Your task to perform on an android device: turn off location history Image 0: 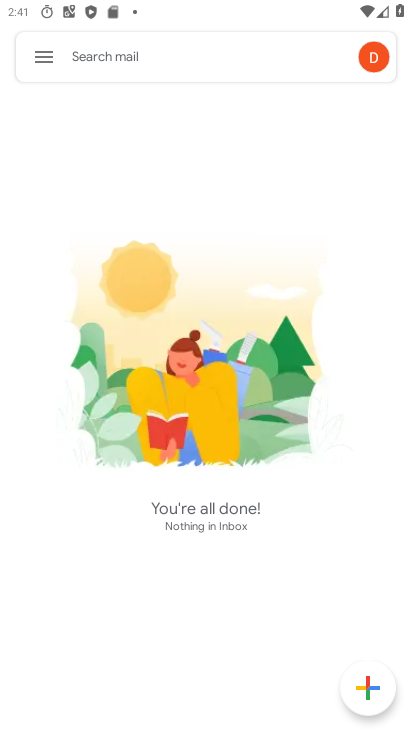
Step 0: press home button
Your task to perform on an android device: turn off location history Image 1: 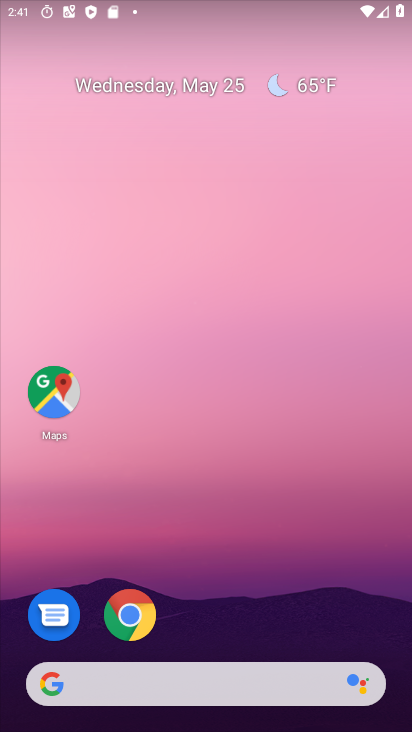
Step 1: click (306, 89)
Your task to perform on an android device: turn off location history Image 2: 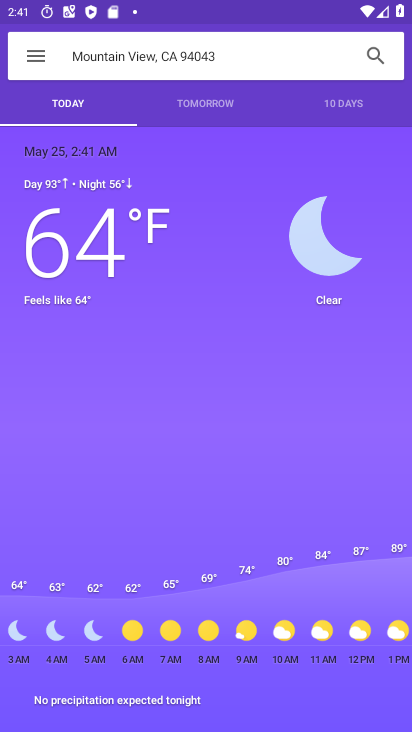
Step 2: press back button
Your task to perform on an android device: turn off location history Image 3: 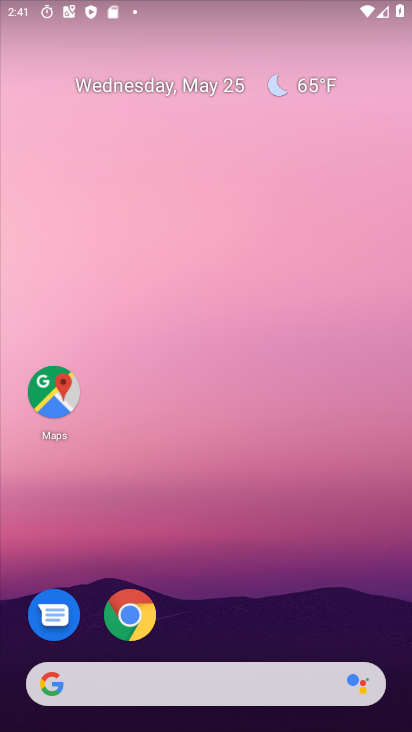
Step 3: drag from (403, 707) to (340, 201)
Your task to perform on an android device: turn off location history Image 4: 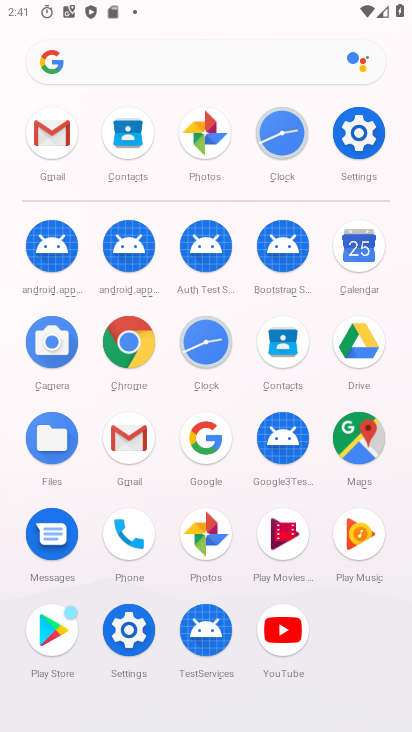
Step 4: click (118, 626)
Your task to perform on an android device: turn off location history Image 5: 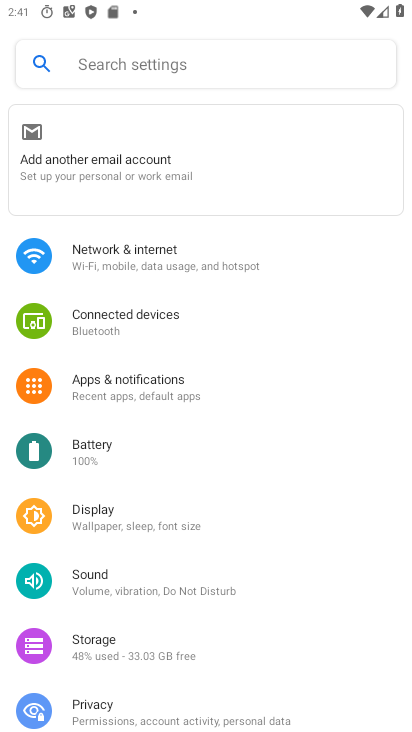
Step 5: drag from (354, 668) to (327, 360)
Your task to perform on an android device: turn off location history Image 6: 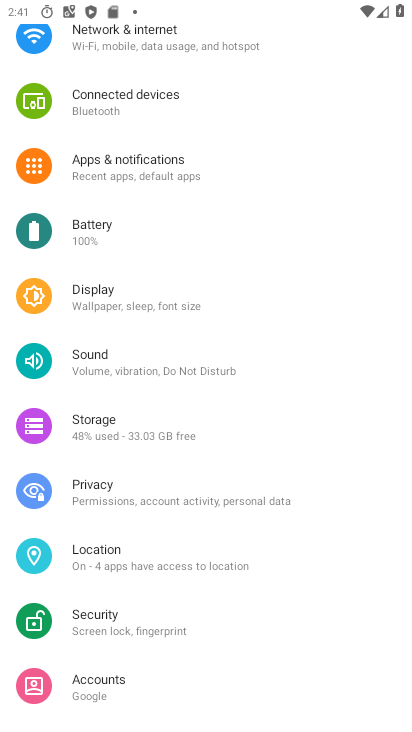
Step 6: click (87, 564)
Your task to perform on an android device: turn off location history Image 7: 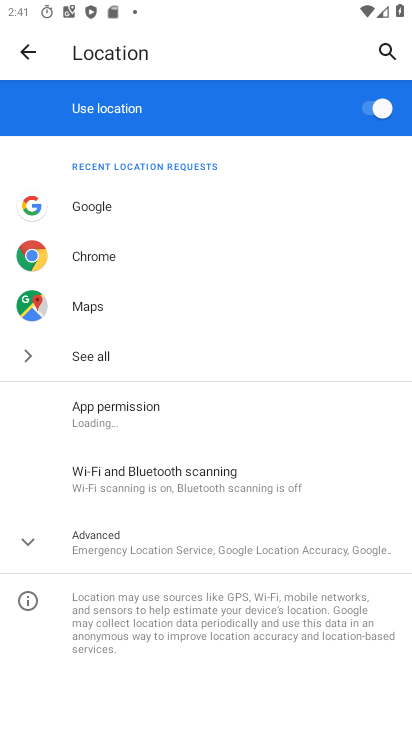
Step 7: click (366, 105)
Your task to perform on an android device: turn off location history Image 8: 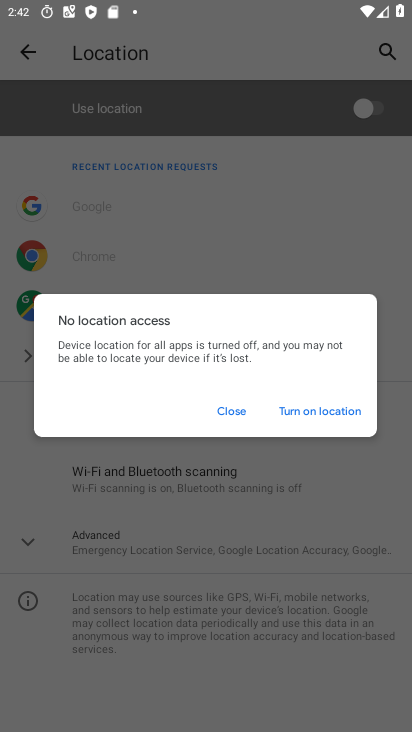
Step 8: click (227, 403)
Your task to perform on an android device: turn off location history Image 9: 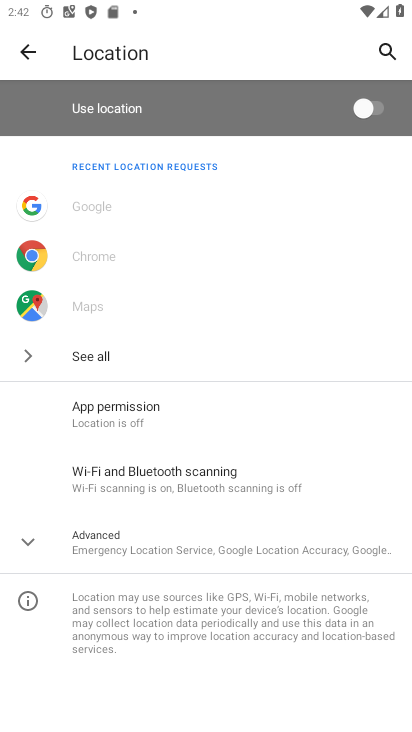
Step 9: task complete